Your task to perform on an android device: Open notification settings Image 0: 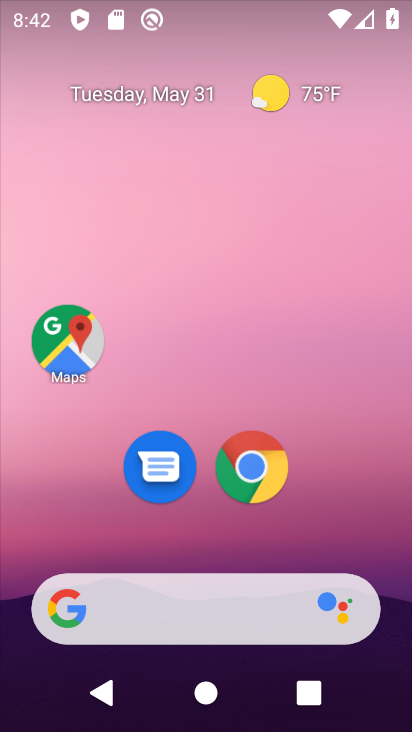
Step 0: click (380, 623)
Your task to perform on an android device: Open notification settings Image 1: 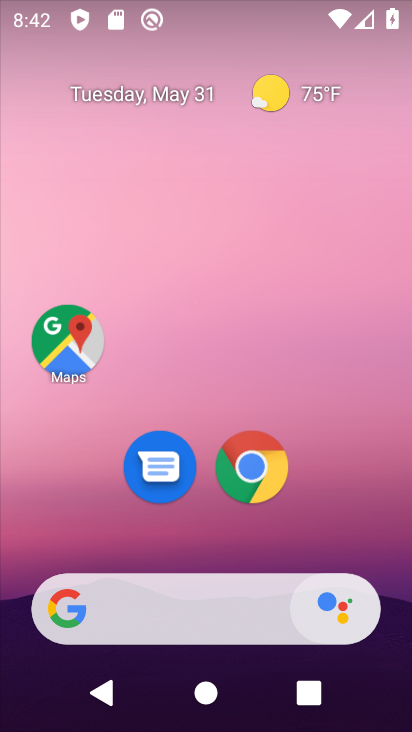
Step 1: drag from (178, 477) to (208, 11)
Your task to perform on an android device: Open notification settings Image 2: 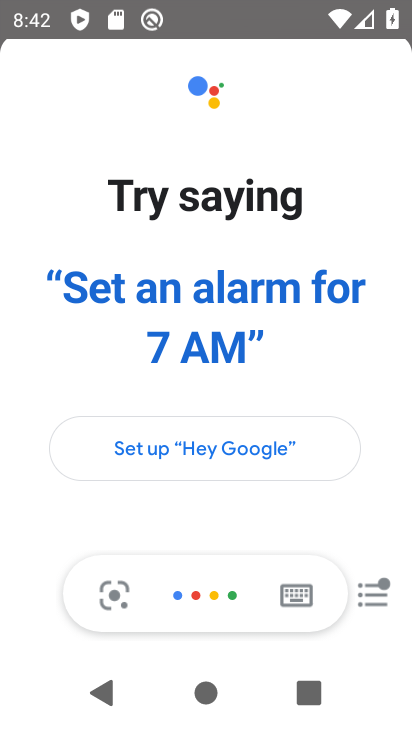
Step 2: click (173, 205)
Your task to perform on an android device: Open notification settings Image 3: 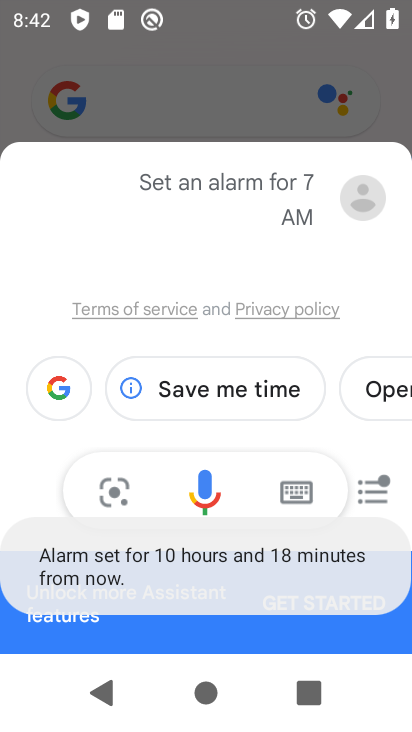
Step 3: press home button
Your task to perform on an android device: Open notification settings Image 4: 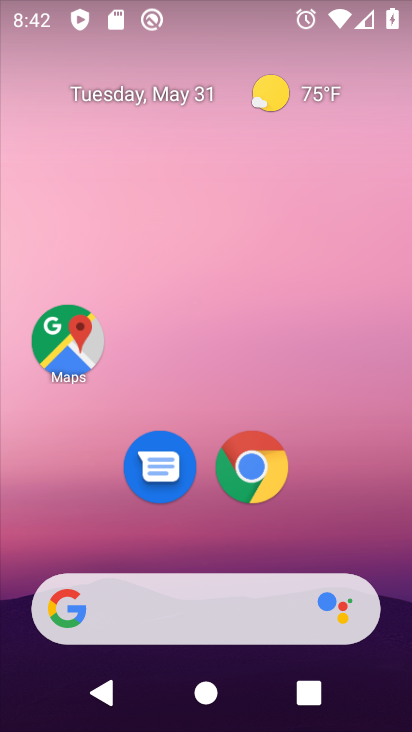
Step 4: drag from (198, 539) to (241, 7)
Your task to perform on an android device: Open notification settings Image 5: 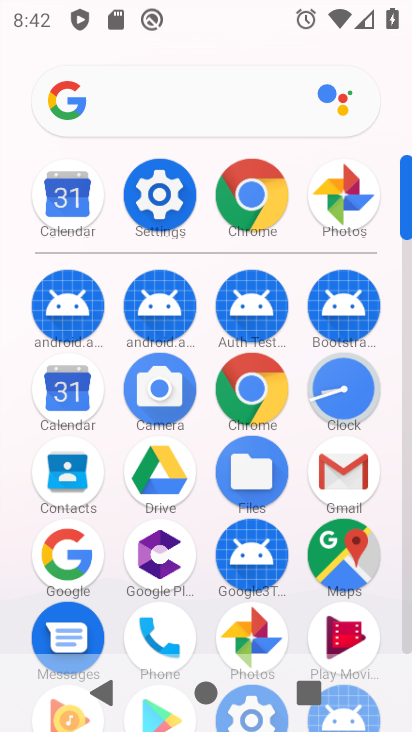
Step 5: click (191, 201)
Your task to perform on an android device: Open notification settings Image 6: 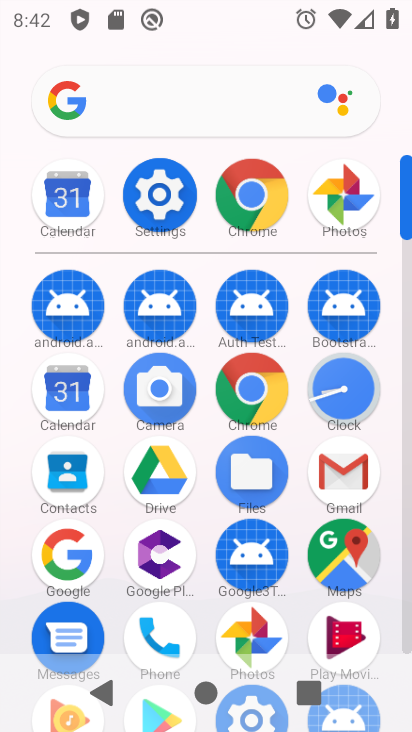
Step 6: click (189, 201)
Your task to perform on an android device: Open notification settings Image 7: 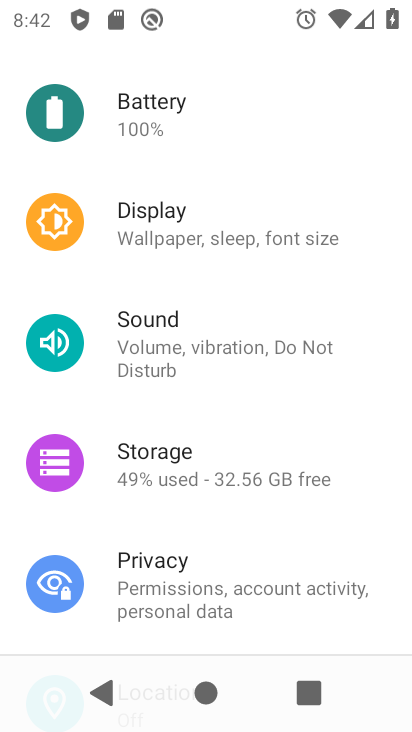
Step 7: drag from (227, 195) to (243, 556)
Your task to perform on an android device: Open notification settings Image 8: 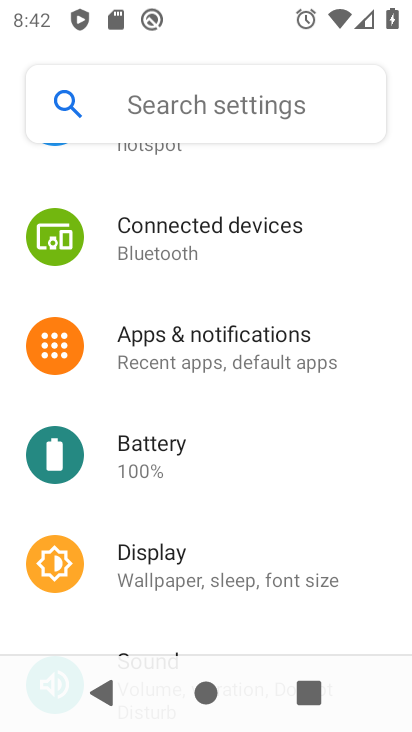
Step 8: click (195, 348)
Your task to perform on an android device: Open notification settings Image 9: 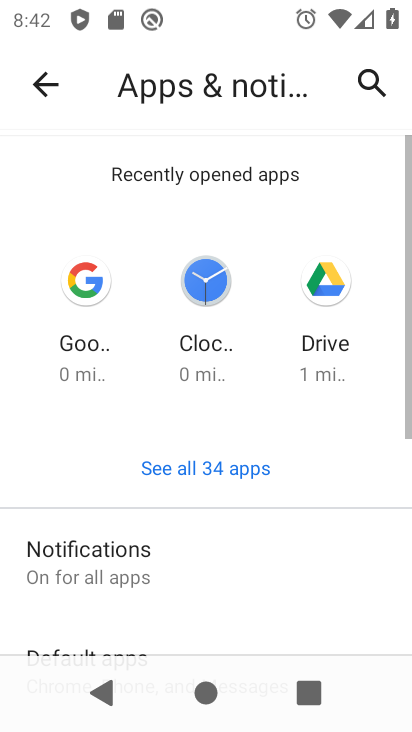
Step 9: click (197, 562)
Your task to perform on an android device: Open notification settings Image 10: 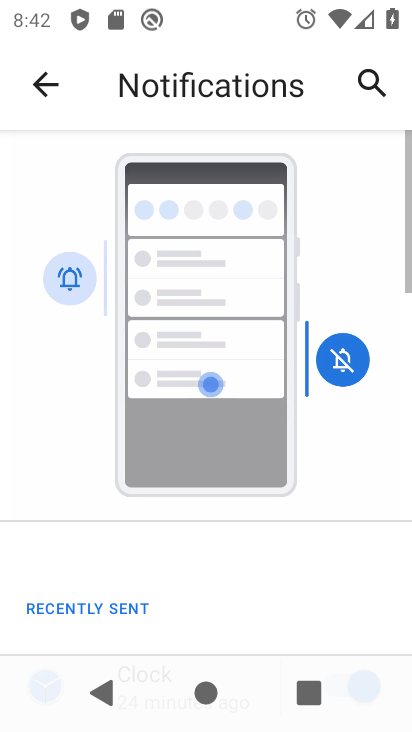
Step 10: drag from (213, 519) to (311, 201)
Your task to perform on an android device: Open notification settings Image 11: 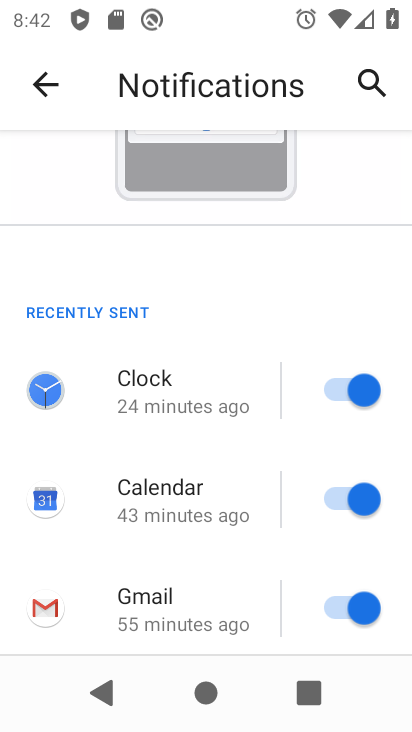
Step 11: drag from (218, 564) to (304, 204)
Your task to perform on an android device: Open notification settings Image 12: 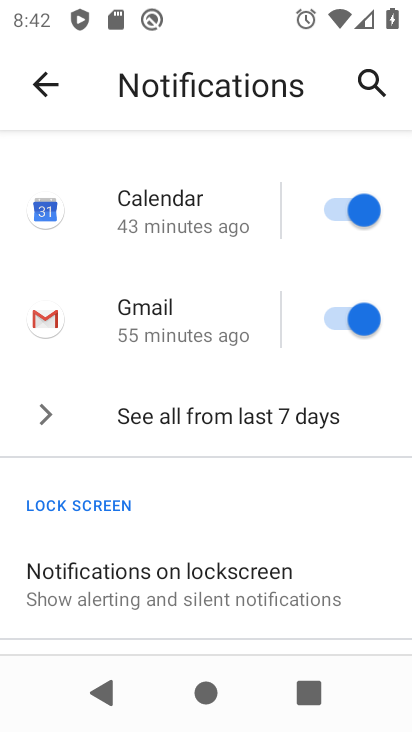
Step 12: drag from (169, 583) to (234, 148)
Your task to perform on an android device: Open notification settings Image 13: 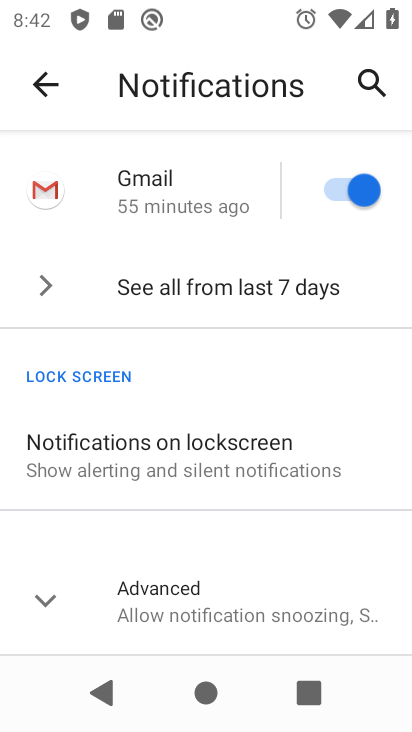
Step 13: click (172, 606)
Your task to perform on an android device: Open notification settings Image 14: 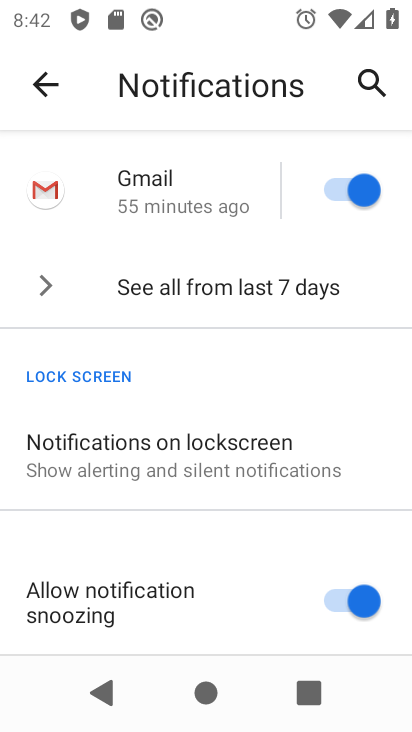
Step 14: task complete